Your task to perform on an android device: How much does a 3 bedroom apartment rent for in Chicago? Image 0: 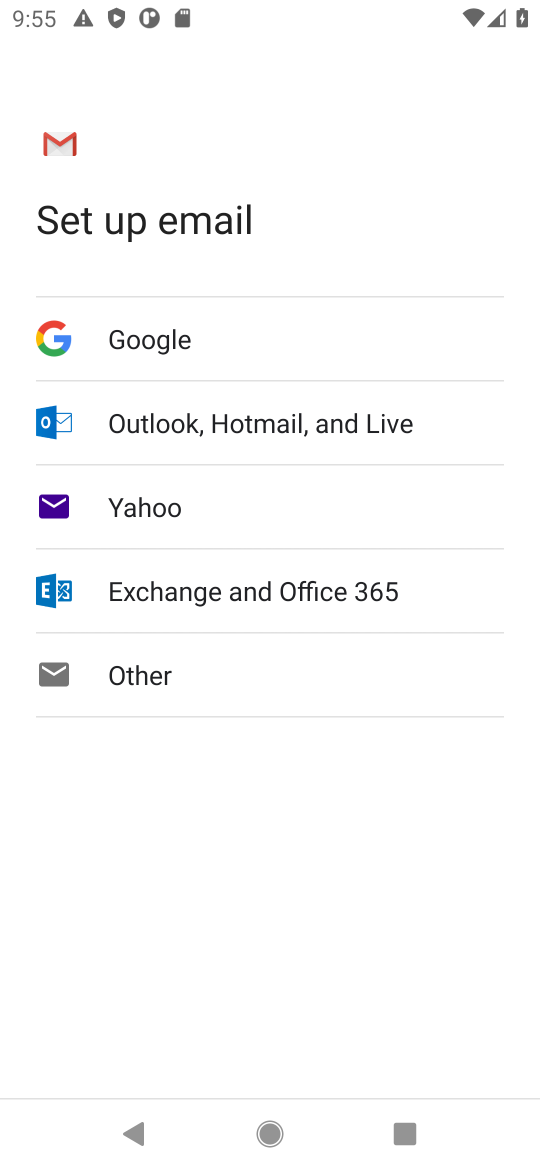
Step 0: press home button
Your task to perform on an android device: How much does a 3 bedroom apartment rent for in Chicago? Image 1: 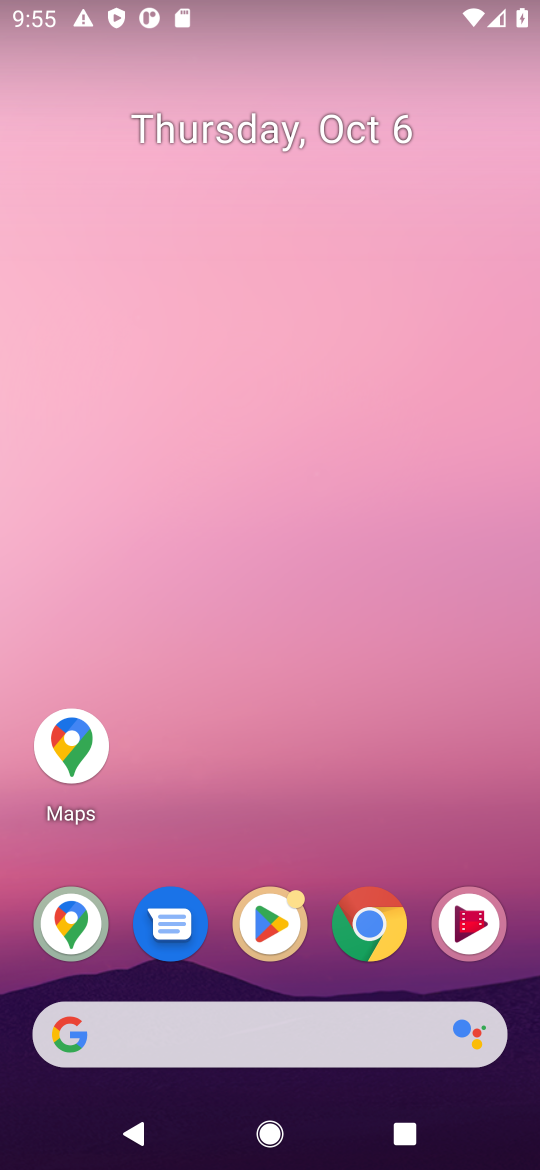
Step 1: click (375, 910)
Your task to perform on an android device: How much does a 3 bedroom apartment rent for in Chicago? Image 2: 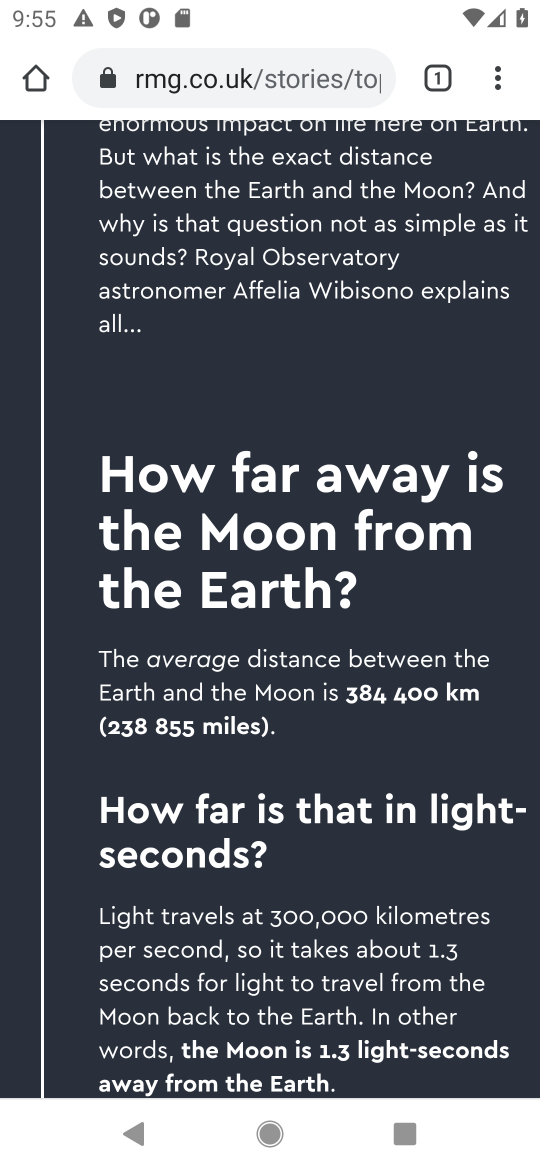
Step 2: click (317, 70)
Your task to perform on an android device: How much does a 3 bedroom apartment rent for in Chicago? Image 3: 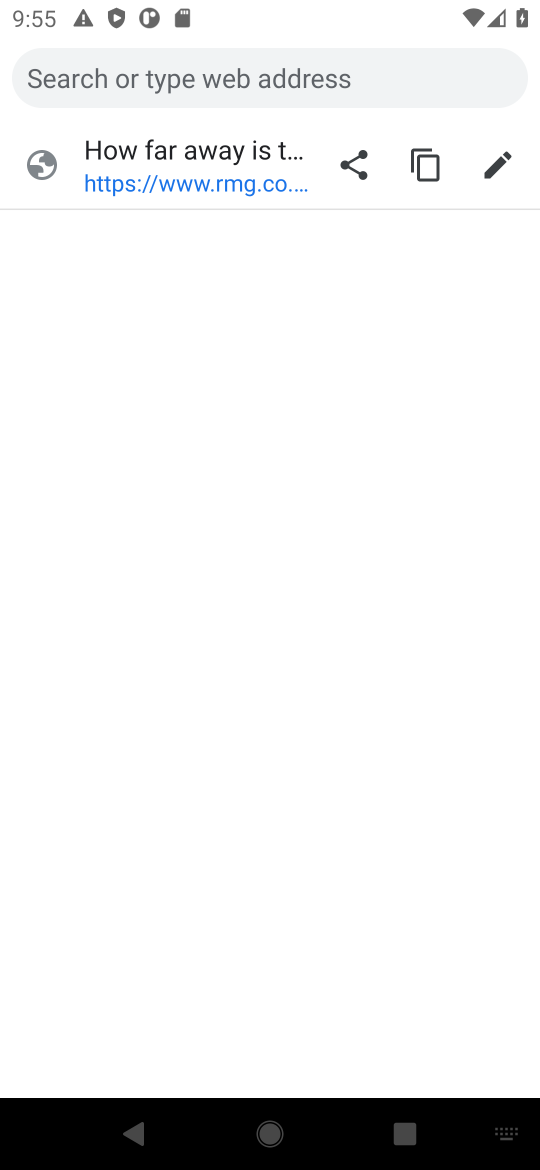
Step 3: type "3 bedroom apartment rent for in Chicago"
Your task to perform on an android device: How much does a 3 bedroom apartment rent for in Chicago? Image 4: 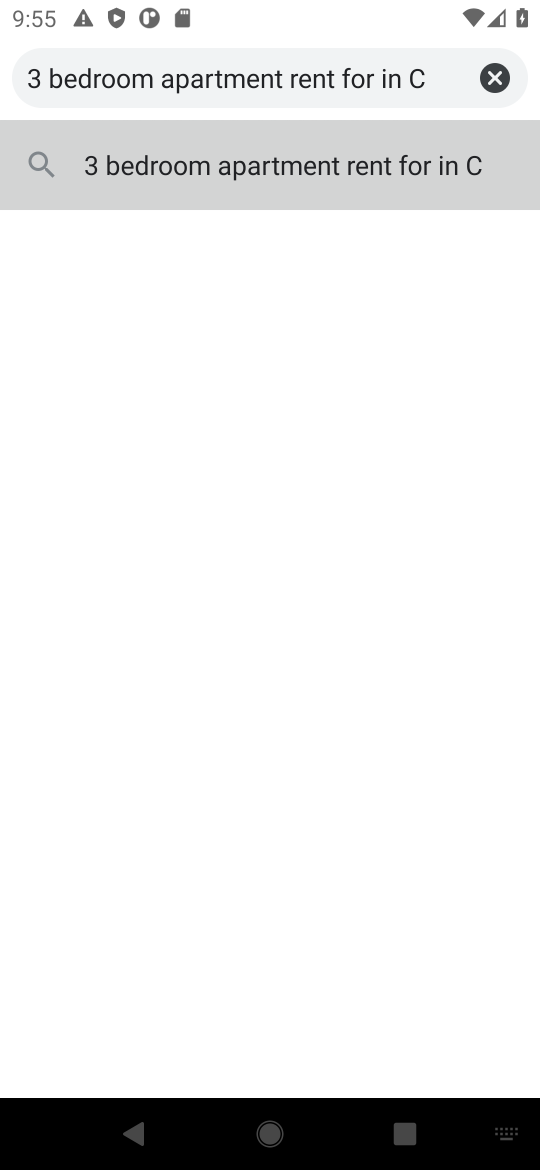
Step 4: click (379, 167)
Your task to perform on an android device: How much does a 3 bedroom apartment rent for in Chicago? Image 5: 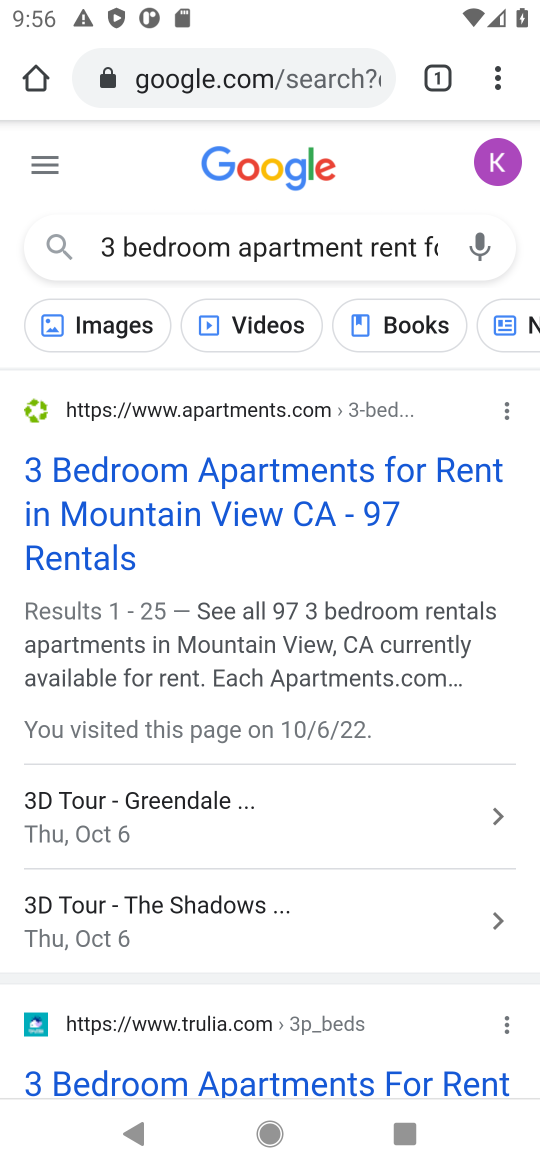
Step 5: click (383, 244)
Your task to perform on an android device: How much does a 3 bedroom apartment rent for in Chicago? Image 6: 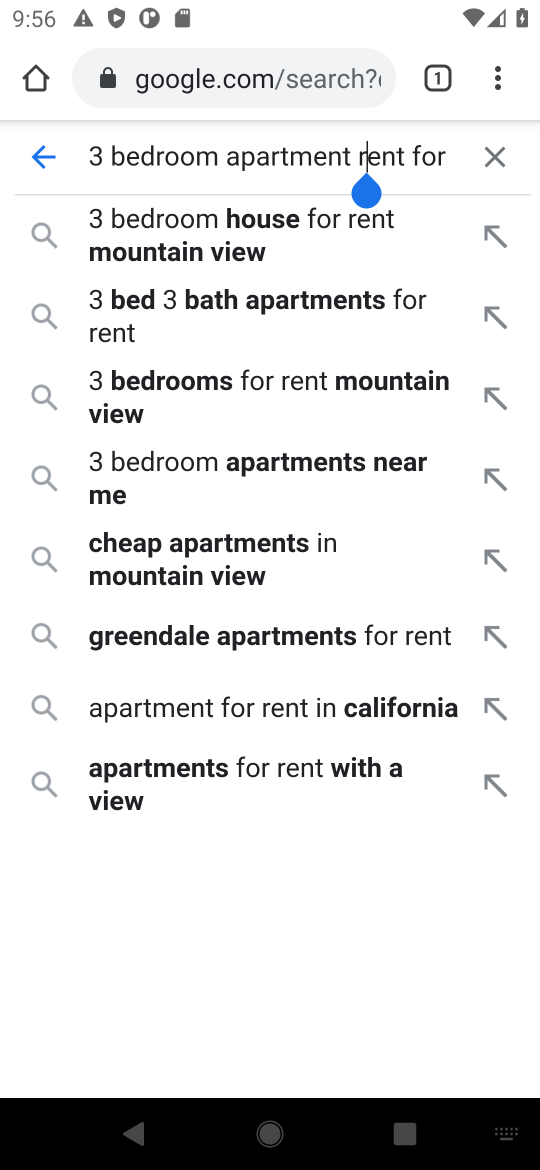
Step 6: drag from (368, 190) to (474, 187)
Your task to perform on an android device: How much does a 3 bedroom apartment rent for in Chicago? Image 7: 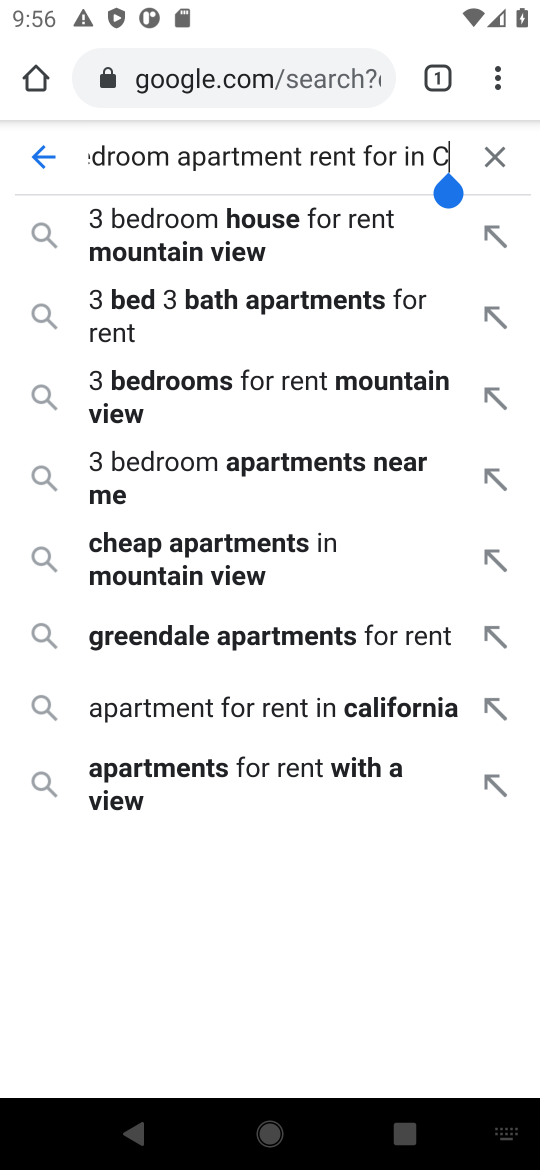
Step 7: type "hicago"
Your task to perform on an android device: How much does a 3 bedroom apartment rent for in Chicago? Image 8: 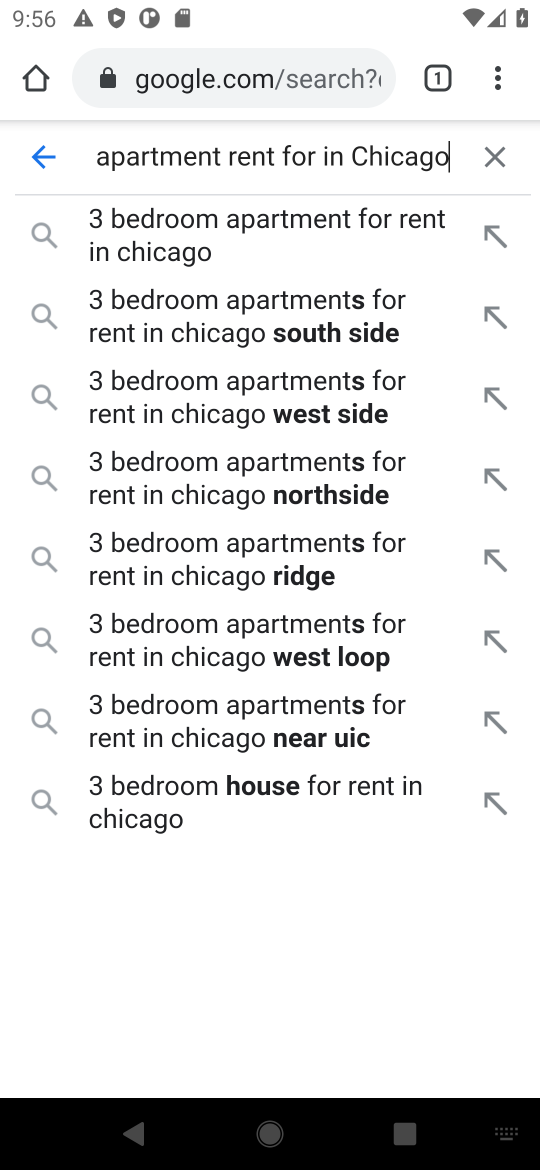
Step 8: click (323, 237)
Your task to perform on an android device: How much does a 3 bedroom apartment rent for in Chicago? Image 9: 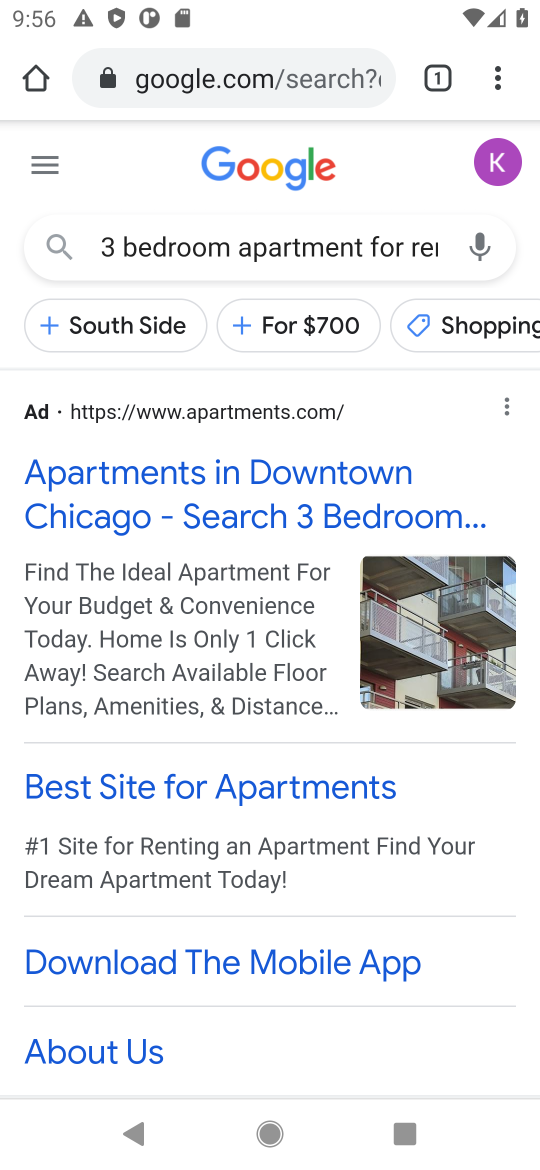
Step 9: drag from (275, 817) to (371, 364)
Your task to perform on an android device: How much does a 3 bedroom apartment rent for in Chicago? Image 10: 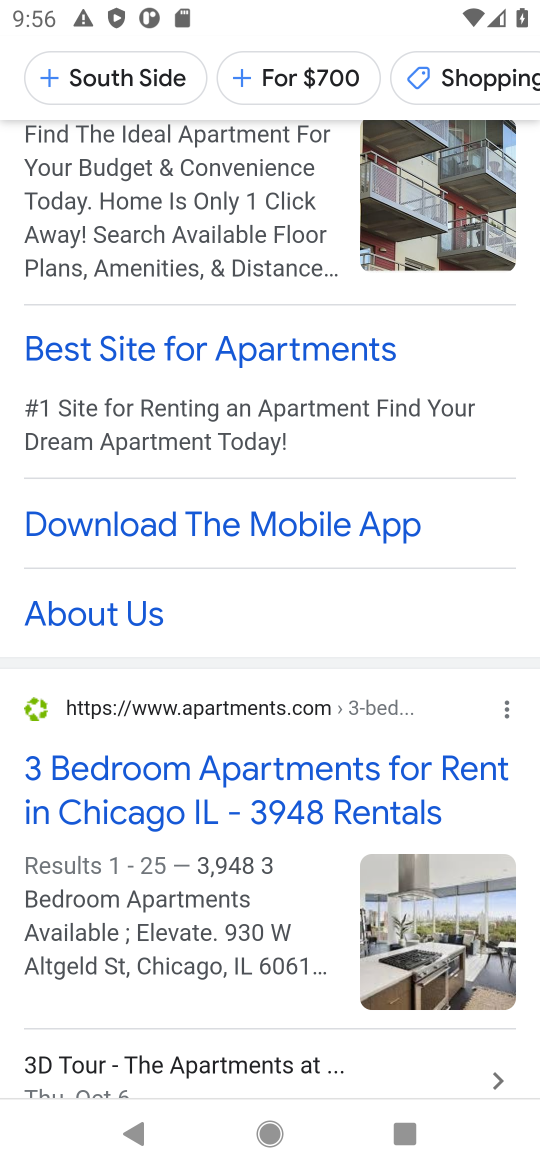
Step 10: click (191, 770)
Your task to perform on an android device: How much does a 3 bedroom apartment rent for in Chicago? Image 11: 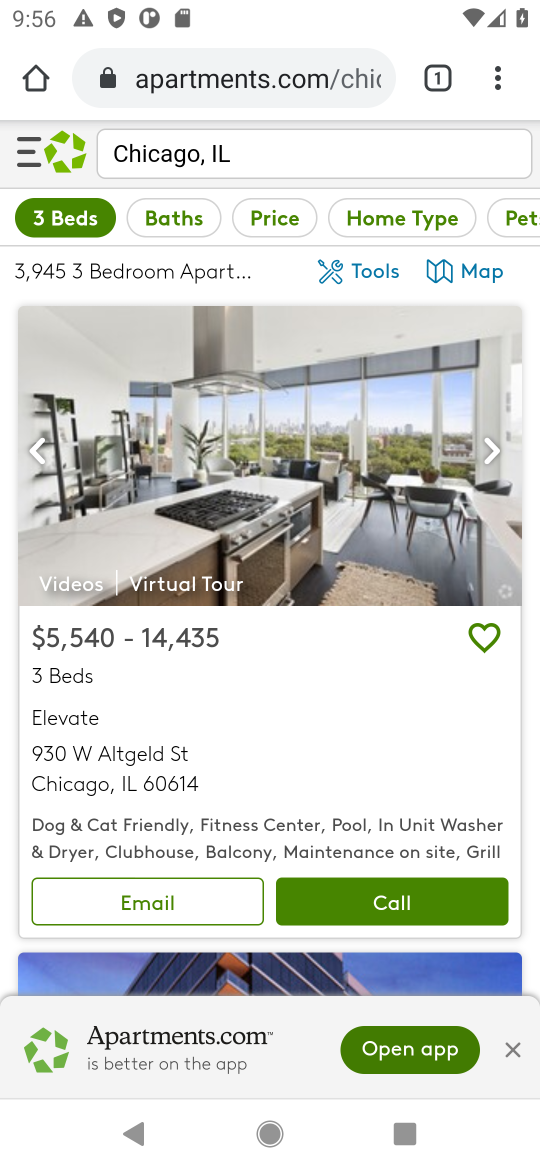
Step 11: click (511, 1043)
Your task to perform on an android device: How much does a 3 bedroom apartment rent for in Chicago? Image 12: 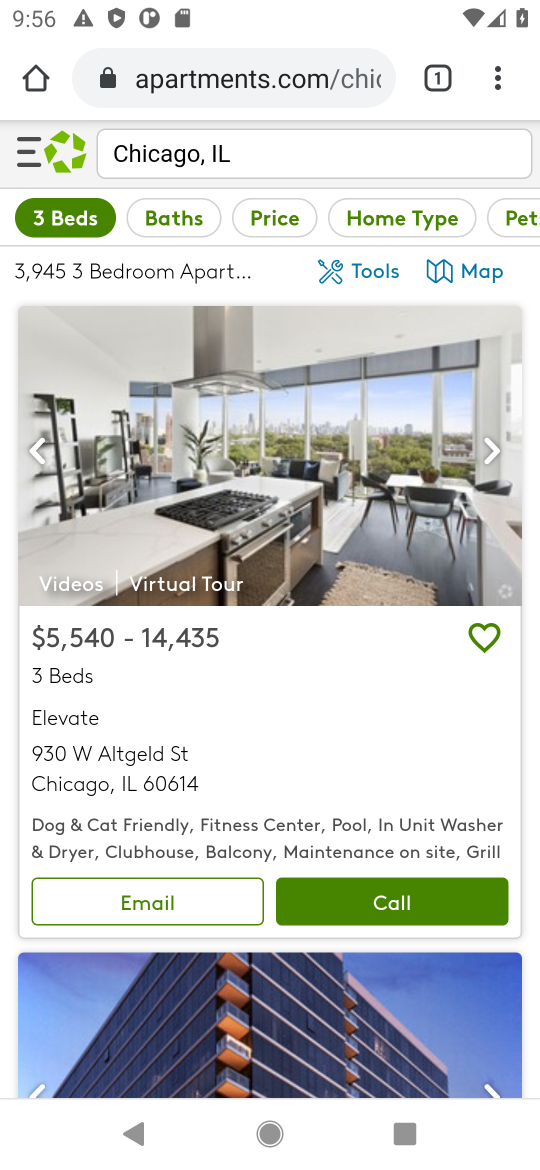
Step 12: task complete